Your task to perform on an android device: toggle translation in the chrome app Image 0: 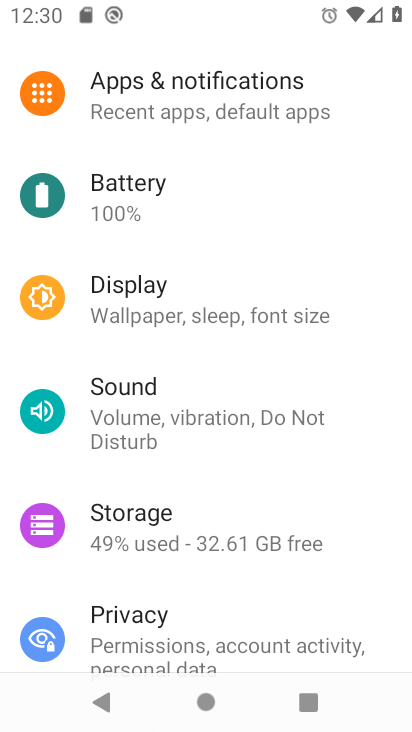
Step 0: press home button
Your task to perform on an android device: toggle translation in the chrome app Image 1: 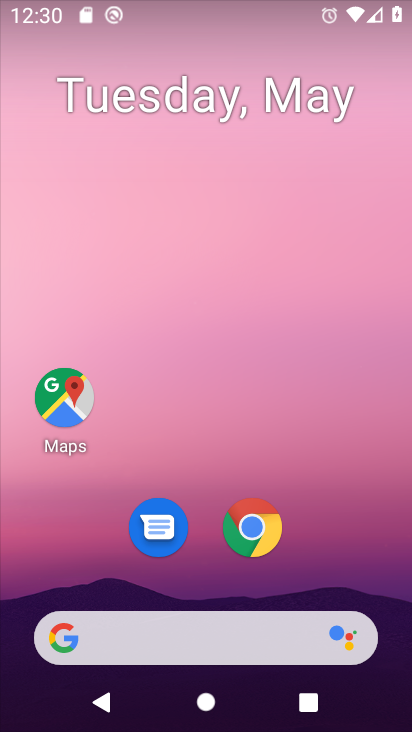
Step 1: click (267, 518)
Your task to perform on an android device: toggle translation in the chrome app Image 2: 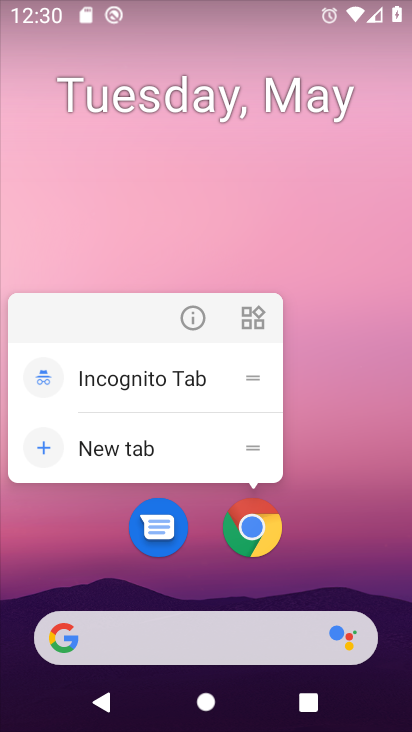
Step 2: click (244, 517)
Your task to perform on an android device: toggle translation in the chrome app Image 3: 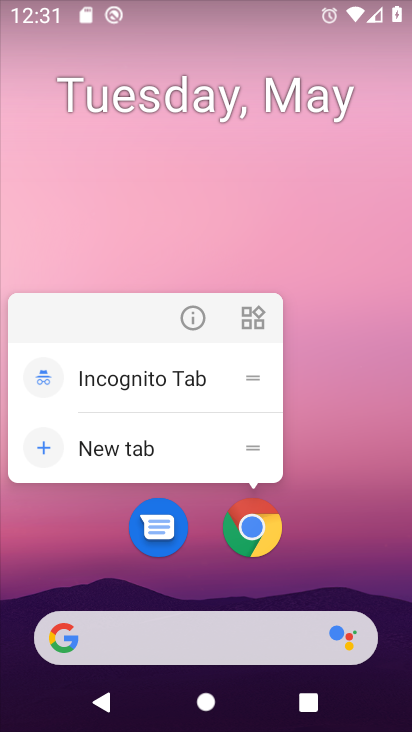
Step 3: click (244, 517)
Your task to perform on an android device: toggle translation in the chrome app Image 4: 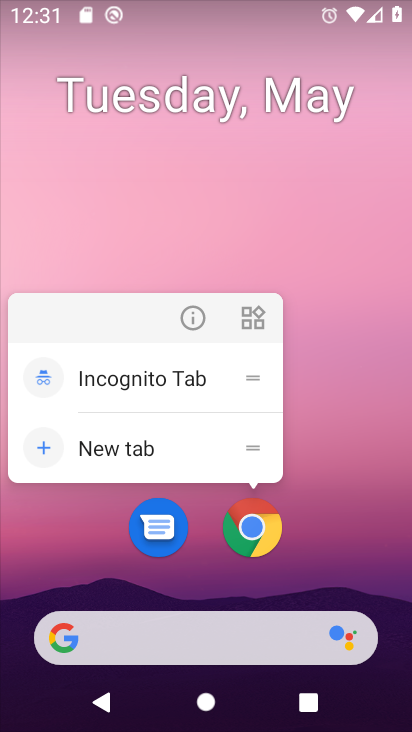
Step 4: click (244, 517)
Your task to perform on an android device: toggle translation in the chrome app Image 5: 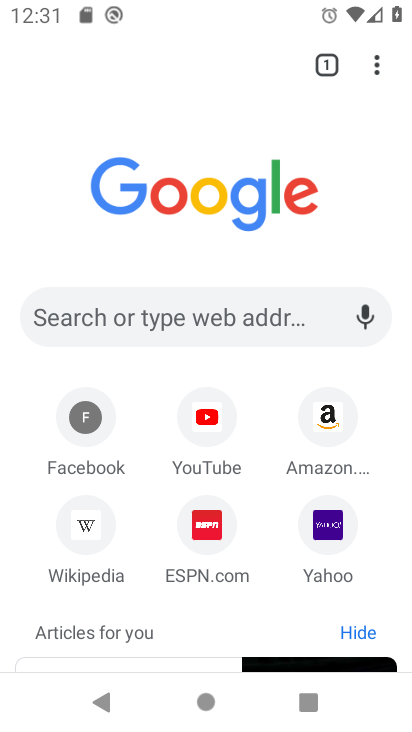
Step 5: click (377, 60)
Your task to perform on an android device: toggle translation in the chrome app Image 6: 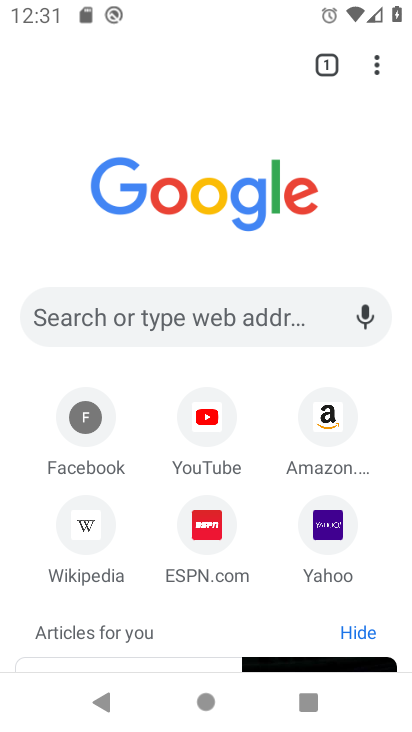
Step 6: click (377, 60)
Your task to perform on an android device: toggle translation in the chrome app Image 7: 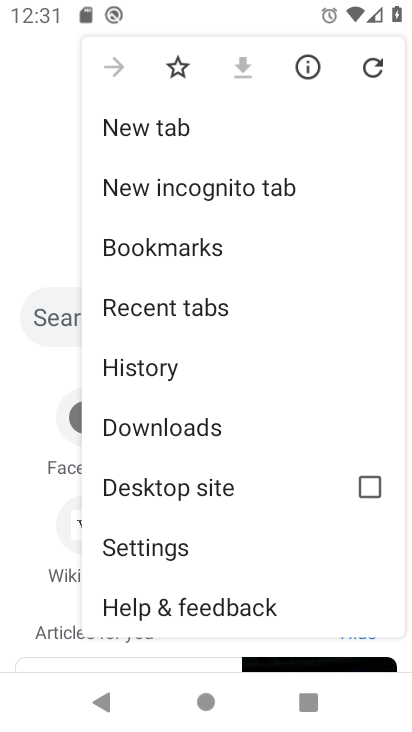
Step 7: click (188, 553)
Your task to perform on an android device: toggle translation in the chrome app Image 8: 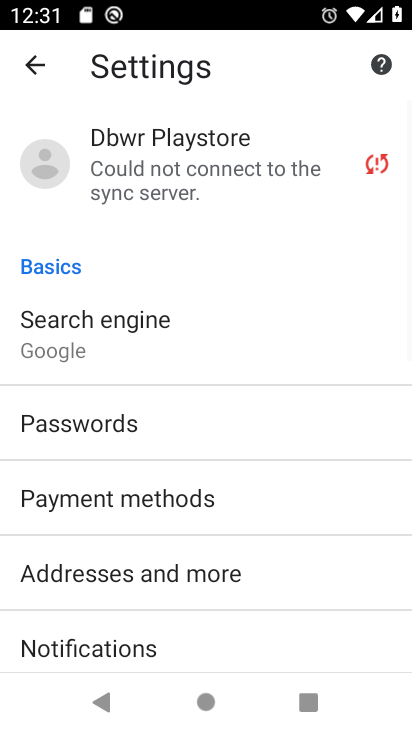
Step 8: drag from (268, 618) to (204, 103)
Your task to perform on an android device: toggle translation in the chrome app Image 9: 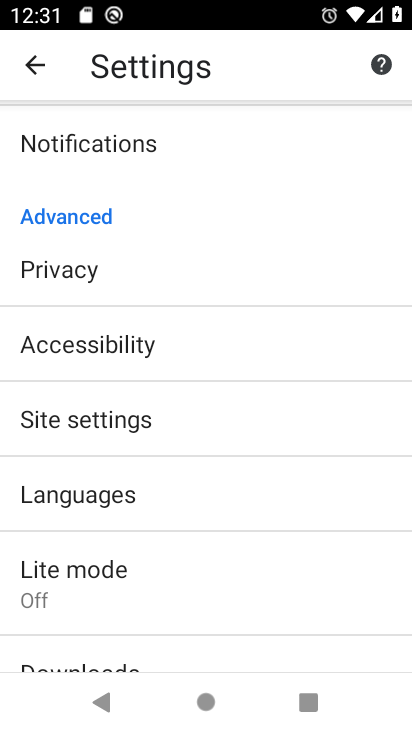
Step 9: click (75, 494)
Your task to perform on an android device: toggle translation in the chrome app Image 10: 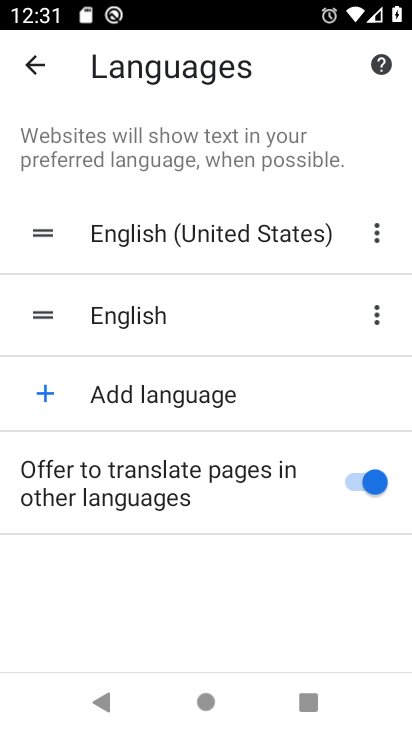
Step 10: click (381, 477)
Your task to perform on an android device: toggle translation in the chrome app Image 11: 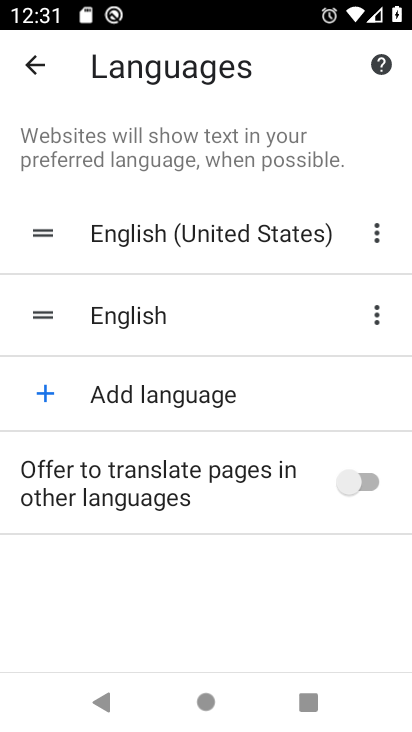
Step 11: task complete